Your task to perform on an android device: allow notifications from all sites in the chrome app Image 0: 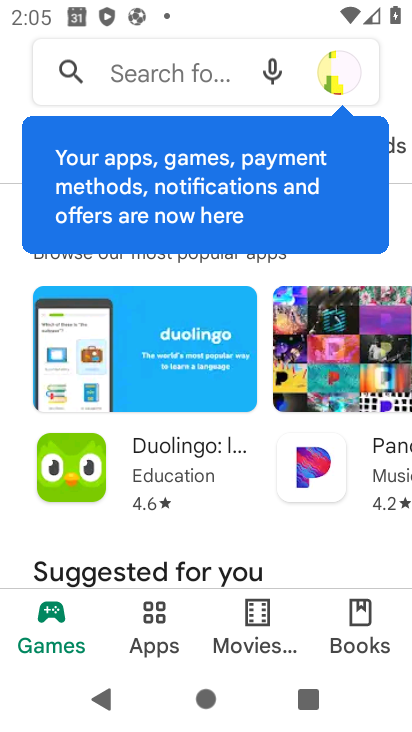
Step 0: press home button
Your task to perform on an android device: allow notifications from all sites in the chrome app Image 1: 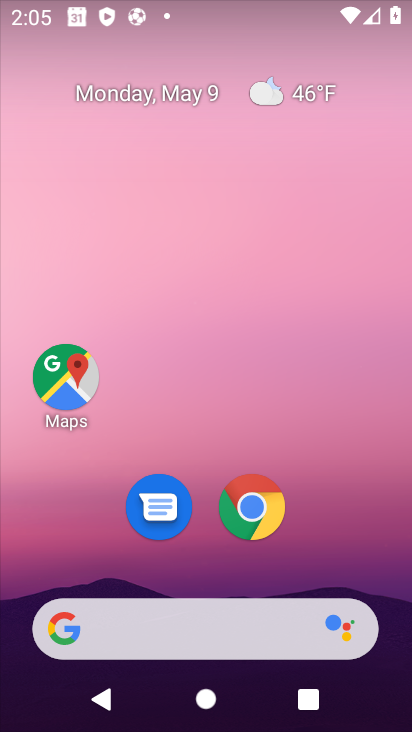
Step 1: click (256, 523)
Your task to perform on an android device: allow notifications from all sites in the chrome app Image 2: 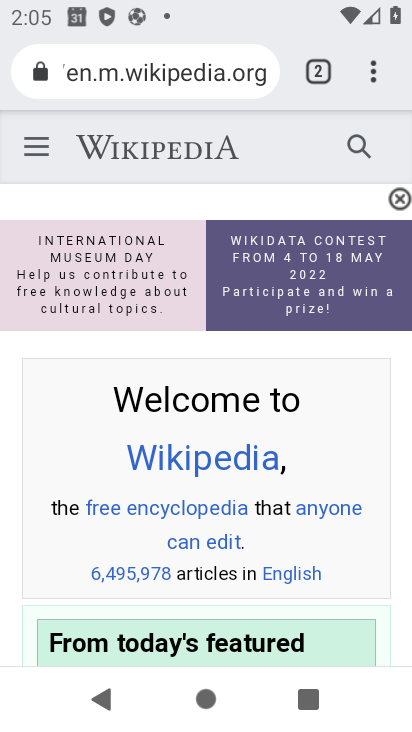
Step 2: click (374, 73)
Your task to perform on an android device: allow notifications from all sites in the chrome app Image 3: 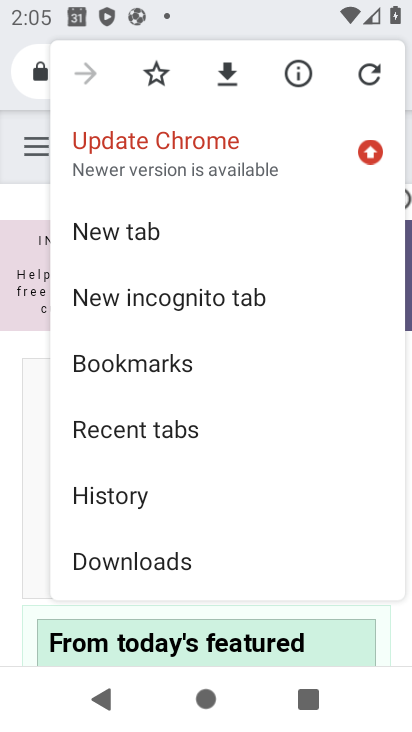
Step 3: drag from (147, 524) to (208, 71)
Your task to perform on an android device: allow notifications from all sites in the chrome app Image 4: 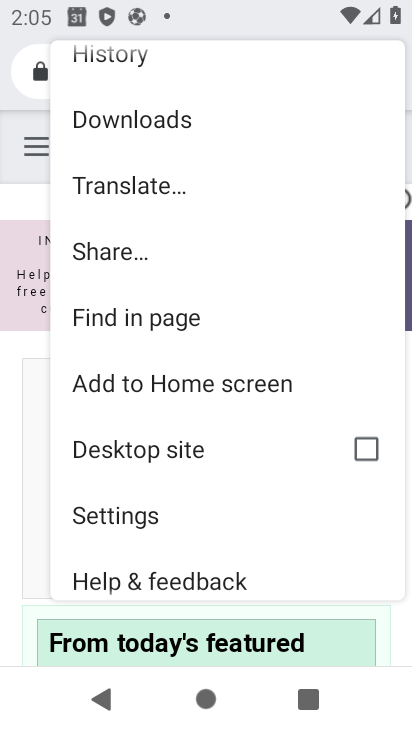
Step 4: click (127, 519)
Your task to perform on an android device: allow notifications from all sites in the chrome app Image 5: 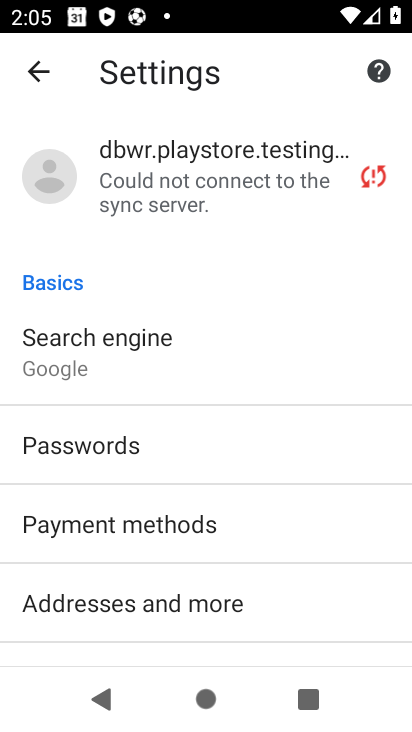
Step 5: drag from (153, 499) to (209, 81)
Your task to perform on an android device: allow notifications from all sites in the chrome app Image 6: 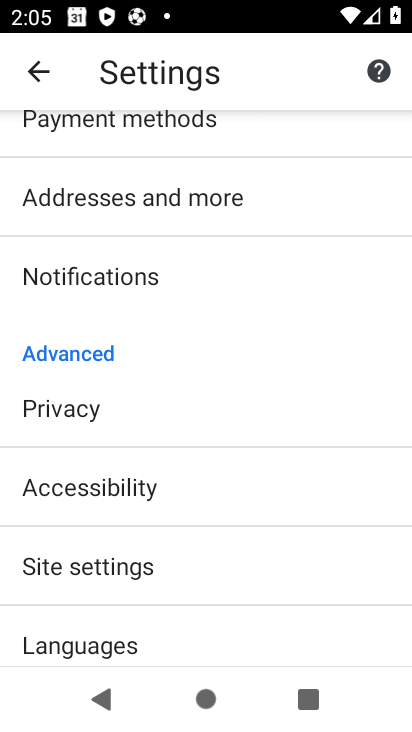
Step 6: click (178, 569)
Your task to perform on an android device: allow notifications from all sites in the chrome app Image 7: 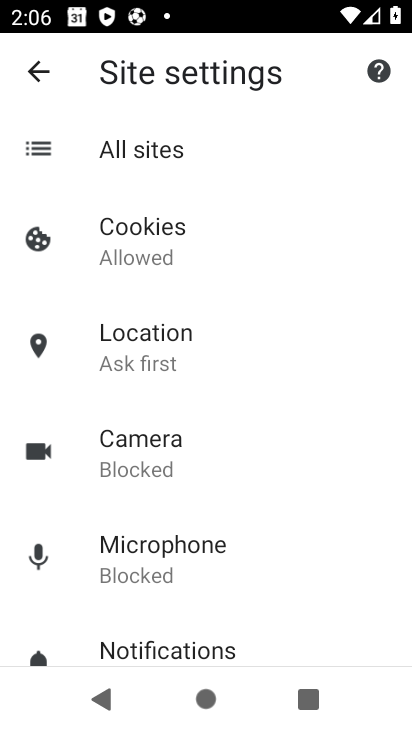
Step 7: drag from (204, 500) to (267, 111)
Your task to perform on an android device: allow notifications from all sites in the chrome app Image 8: 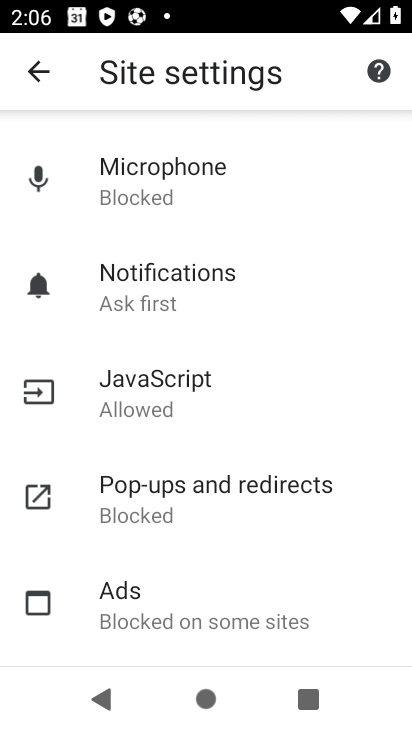
Step 8: click (193, 281)
Your task to perform on an android device: allow notifications from all sites in the chrome app Image 9: 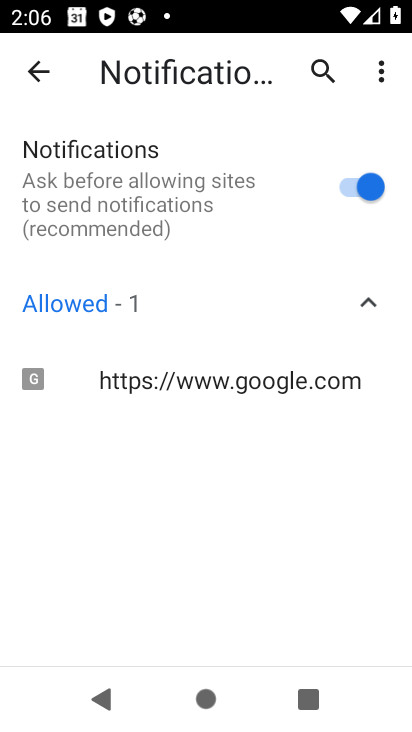
Step 9: task complete